Your task to perform on an android device: Open Google Maps Image 0: 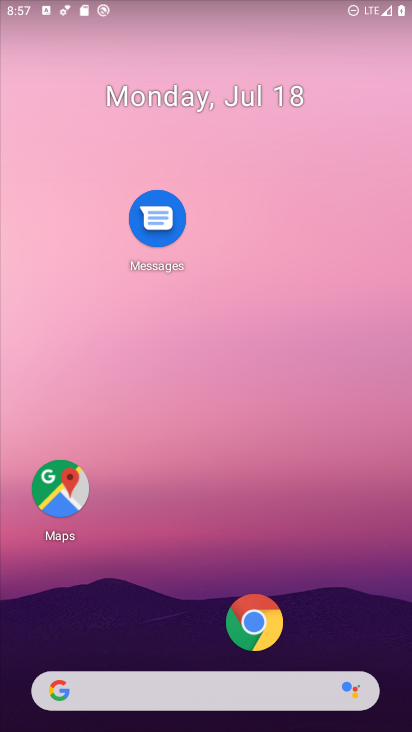
Step 0: drag from (174, 689) to (162, 84)
Your task to perform on an android device: Open Google Maps Image 1: 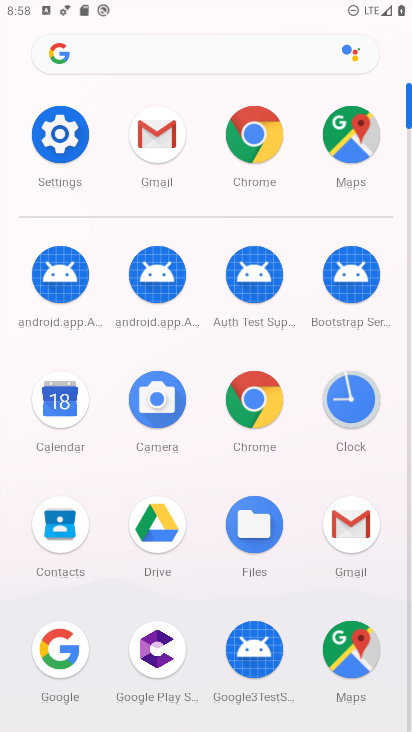
Step 1: click (356, 668)
Your task to perform on an android device: Open Google Maps Image 2: 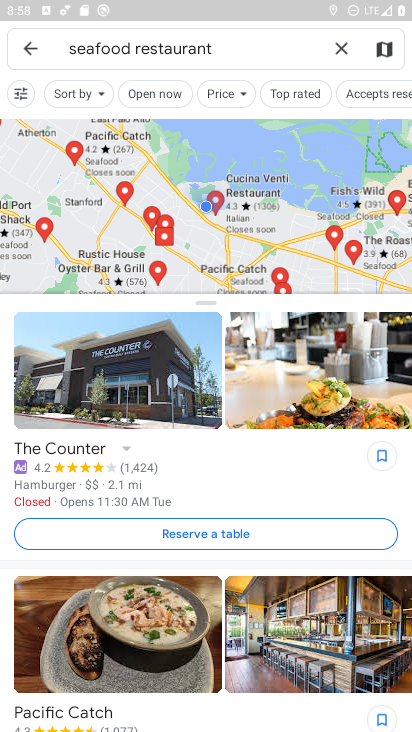
Step 2: task complete